Your task to perform on an android device: Go to Maps Image 0: 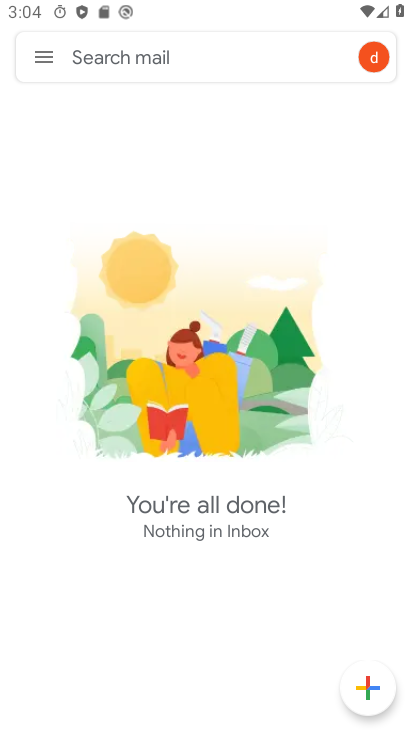
Step 0: press home button
Your task to perform on an android device: Go to Maps Image 1: 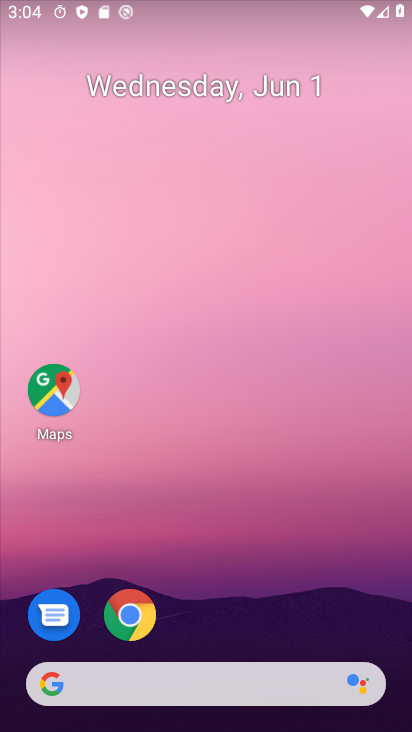
Step 1: drag from (368, 581) to (410, 92)
Your task to perform on an android device: Go to Maps Image 2: 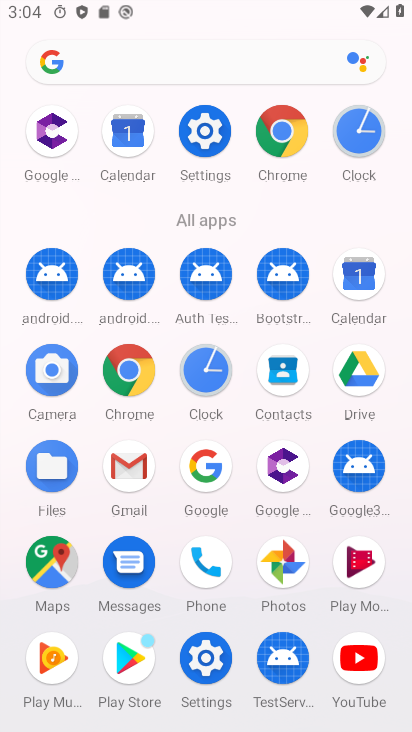
Step 2: click (69, 567)
Your task to perform on an android device: Go to Maps Image 3: 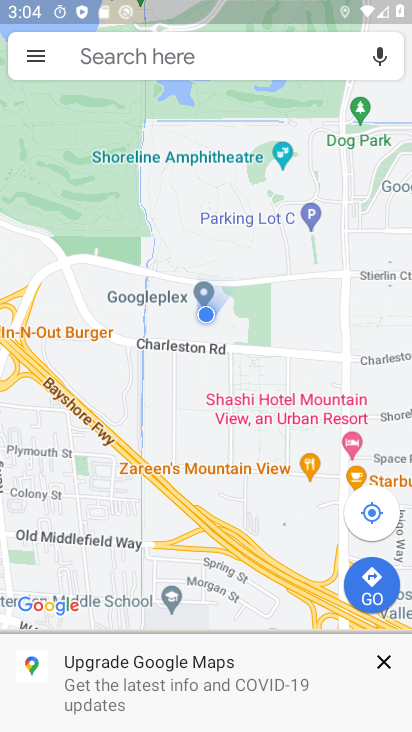
Step 3: task complete